Your task to perform on an android device: toggle notifications settings in the gmail app Image 0: 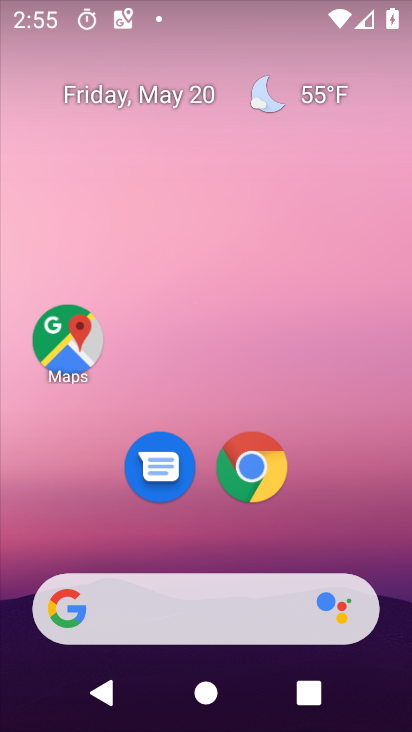
Step 0: drag from (169, 550) to (128, 5)
Your task to perform on an android device: toggle notifications settings in the gmail app Image 1: 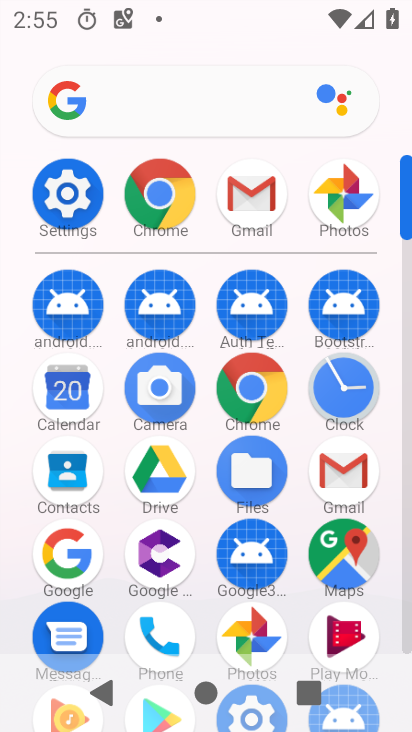
Step 1: click (348, 465)
Your task to perform on an android device: toggle notifications settings in the gmail app Image 2: 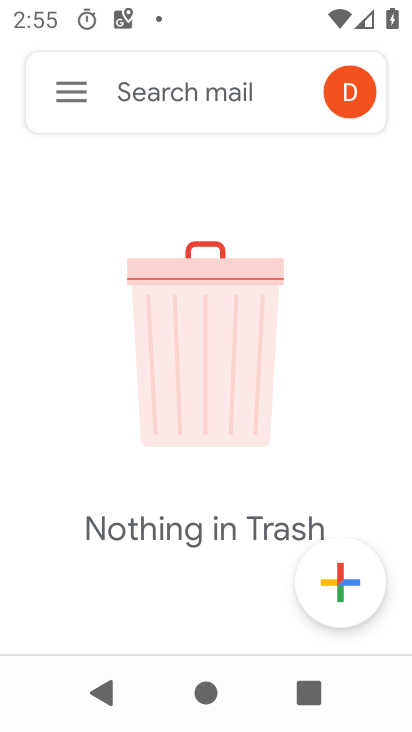
Step 2: click (55, 85)
Your task to perform on an android device: toggle notifications settings in the gmail app Image 3: 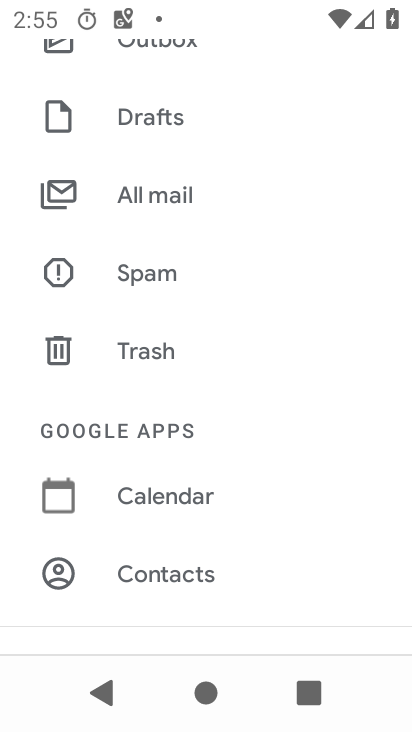
Step 3: drag from (165, 591) to (147, 183)
Your task to perform on an android device: toggle notifications settings in the gmail app Image 4: 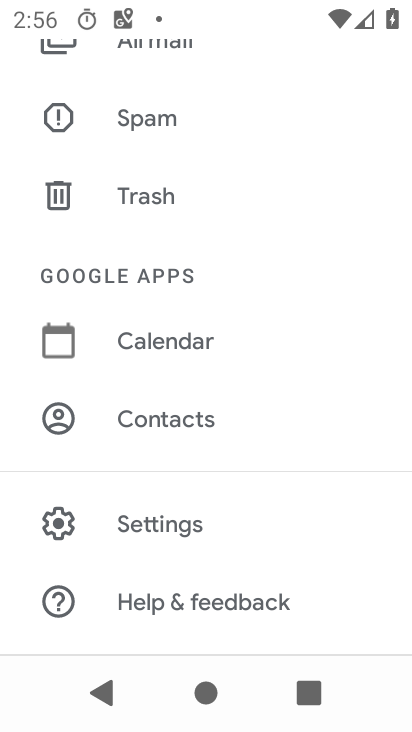
Step 4: click (170, 524)
Your task to perform on an android device: toggle notifications settings in the gmail app Image 5: 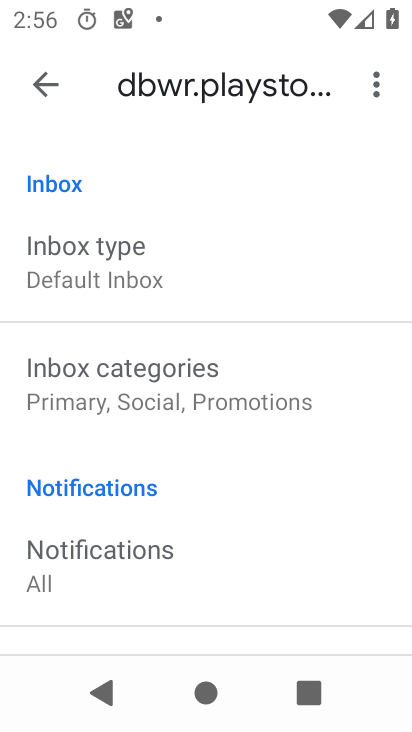
Step 5: drag from (179, 604) to (168, 267)
Your task to perform on an android device: toggle notifications settings in the gmail app Image 6: 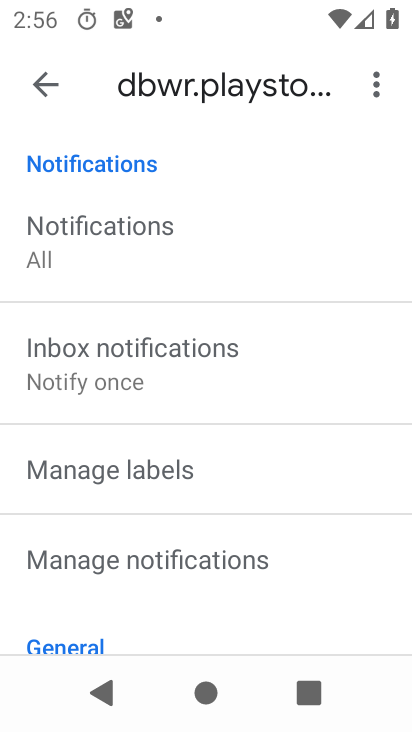
Step 6: click (176, 557)
Your task to perform on an android device: toggle notifications settings in the gmail app Image 7: 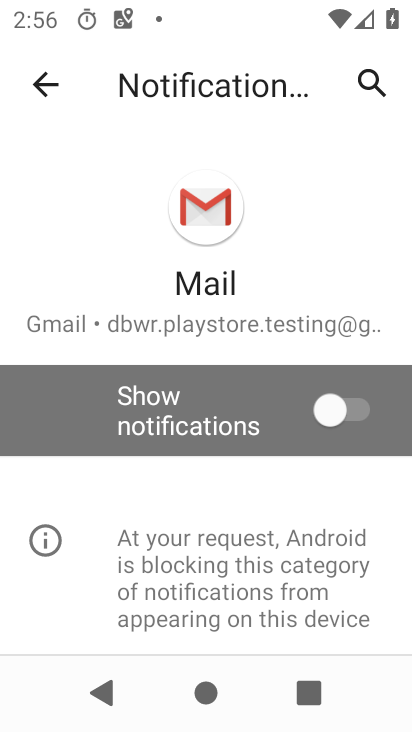
Step 7: click (349, 412)
Your task to perform on an android device: toggle notifications settings in the gmail app Image 8: 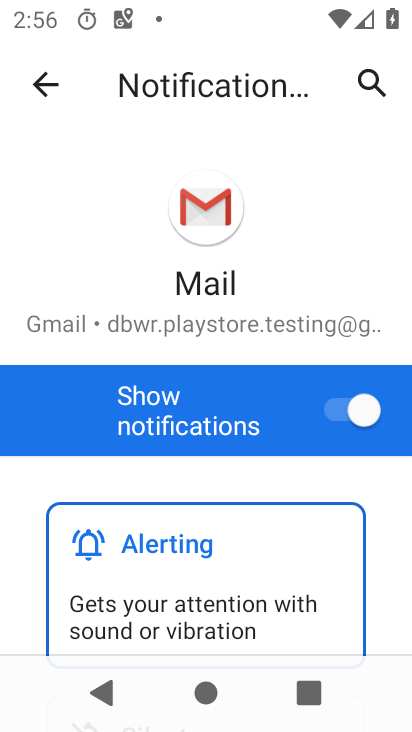
Step 8: task complete